Your task to perform on an android device: uninstall "Move to iOS" Image 0: 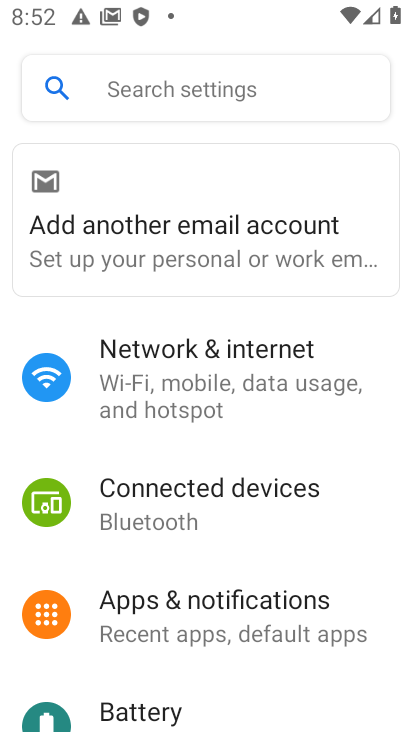
Step 0: press home button
Your task to perform on an android device: uninstall "Move to iOS" Image 1: 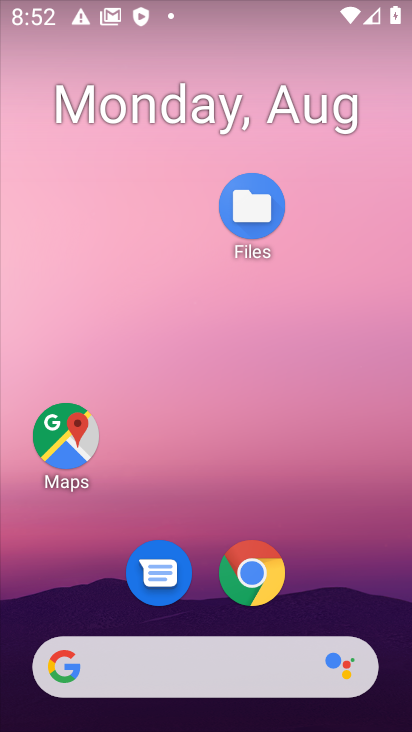
Step 1: drag from (254, 661) to (150, 28)
Your task to perform on an android device: uninstall "Move to iOS" Image 2: 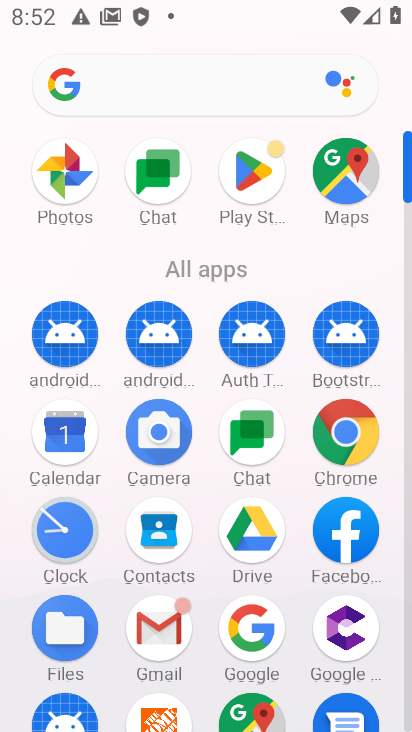
Step 2: click (266, 179)
Your task to perform on an android device: uninstall "Move to iOS" Image 3: 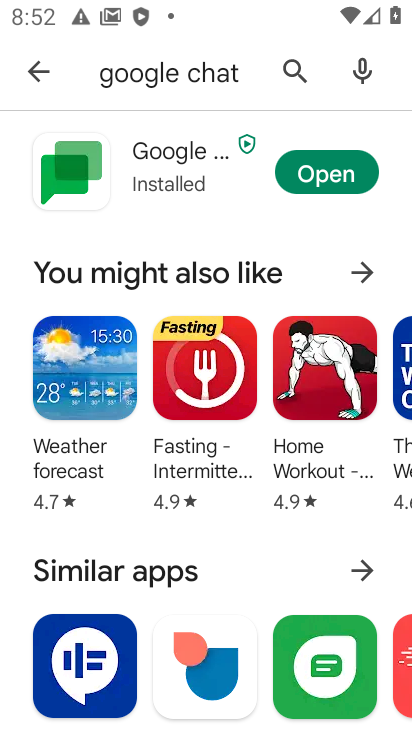
Step 3: click (296, 76)
Your task to perform on an android device: uninstall "Move to iOS" Image 4: 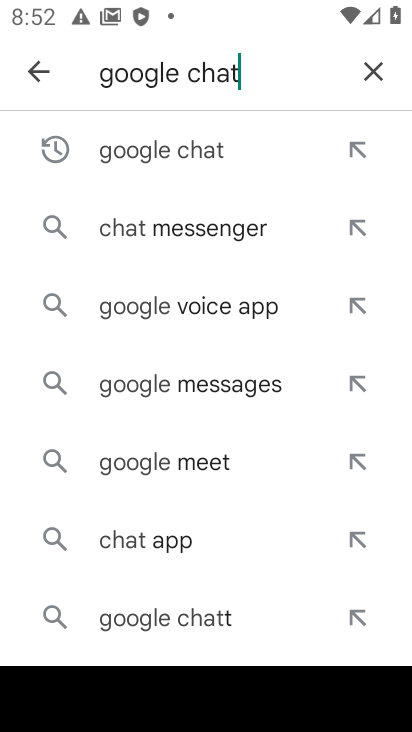
Step 4: click (368, 61)
Your task to perform on an android device: uninstall "Move to iOS" Image 5: 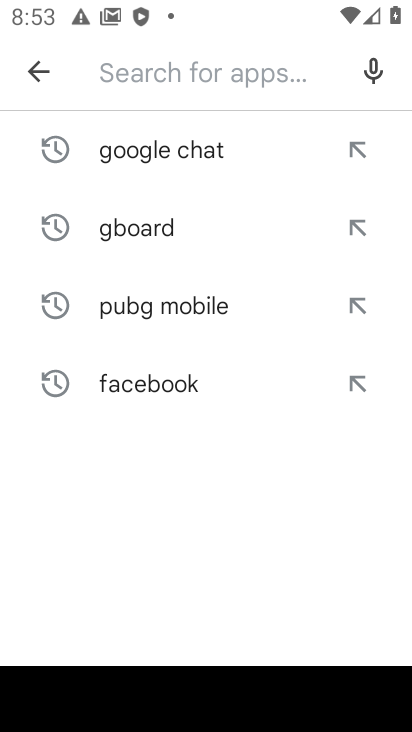
Step 5: type "move to ios"
Your task to perform on an android device: uninstall "Move to iOS" Image 6: 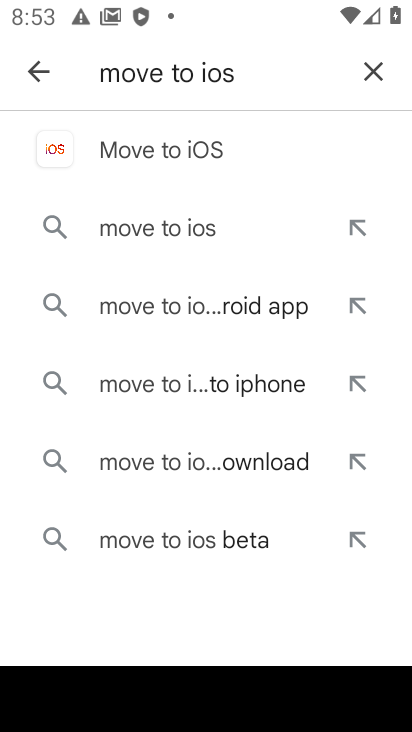
Step 6: click (211, 141)
Your task to perform on an android device: uninstall "Move to iOS" Image 7: 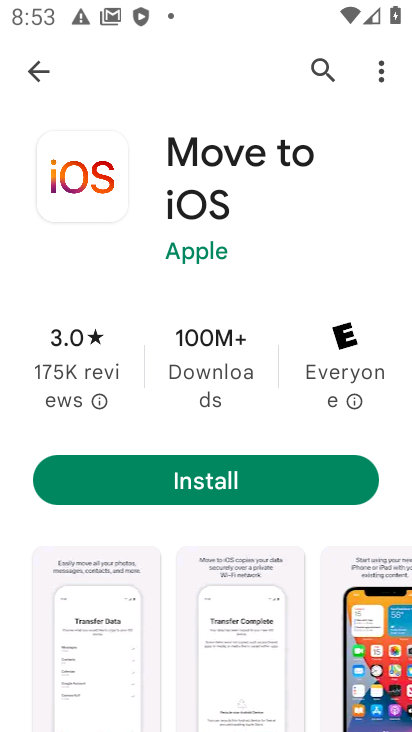
Step 7: task complete